Your task to perform on an android device: What's the weather? Image 0: 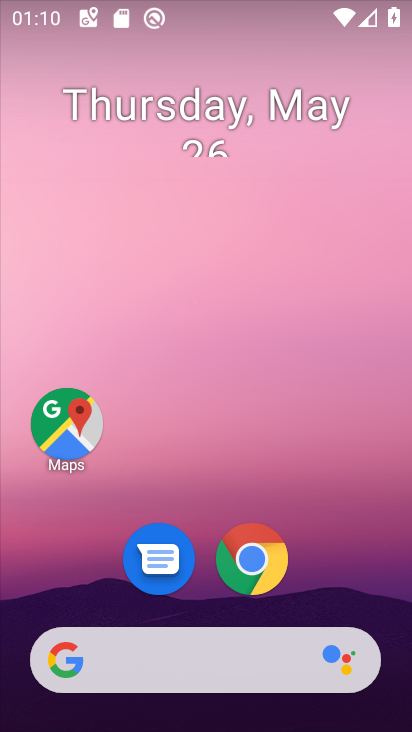
Step 0: click (199, 656)
Your task to perform on an android device: What's the weather? Image 1: 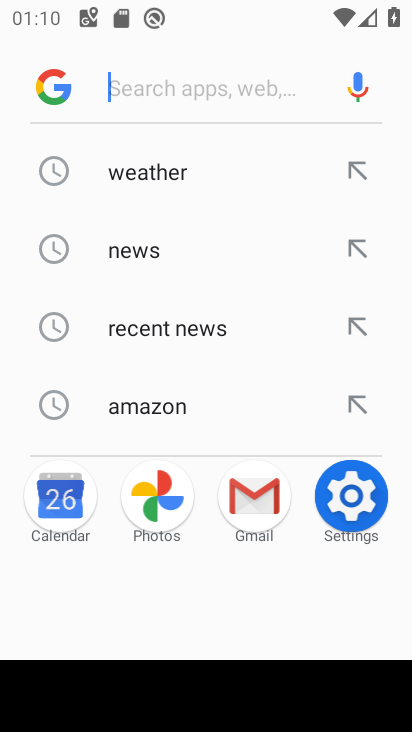
Step 1: click (155, 174)
Your task to perform on an android device: What's the weather? Image 2: 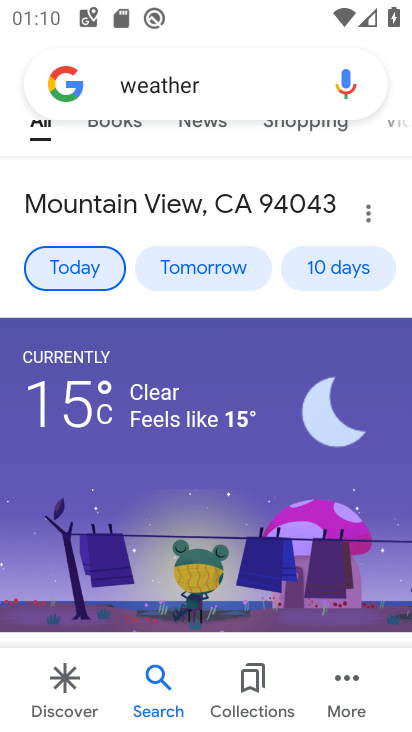
Step 2: task complete